Your task to perform on an android device: Go to privacy settings Image 0: 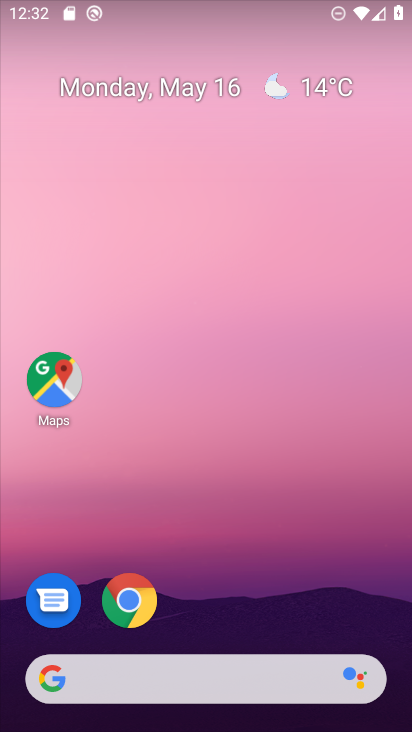
Step 0: drag from (212, 638) to (226, 9)
Your task to perform on an android device: Go to privacy settings Image 1: 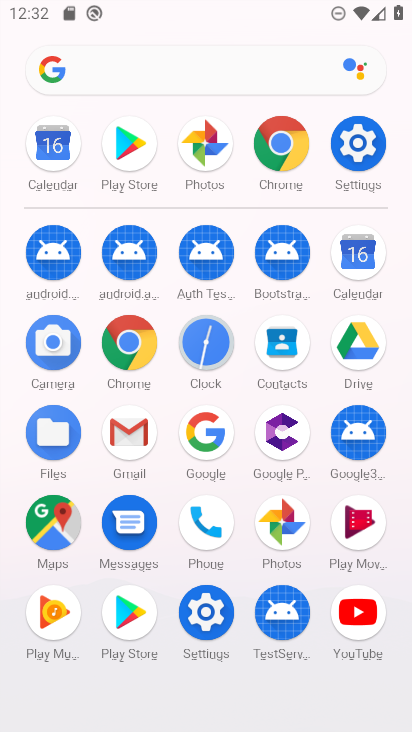
Step 1: click (356, 135)
Your task to perform on an android device: Go to privacy settings Image 2: 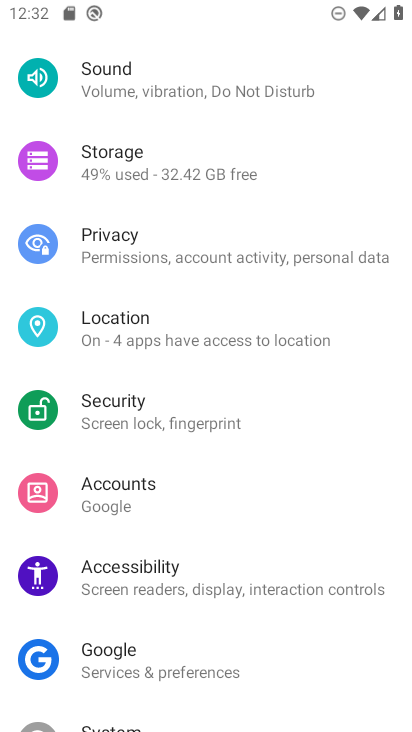
Step 2: click (148, 231)
Your task to perform on an android device: Go to privacy settings Image 3: 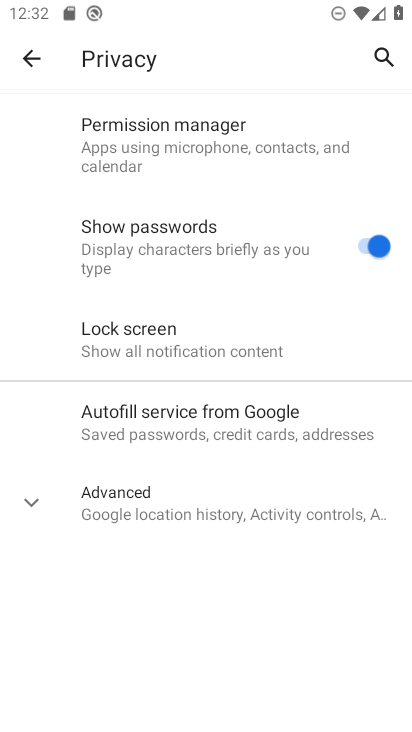
Step 3: click (32, 494)
Your task to perform on an android device: Go to privacy settings Image 4: 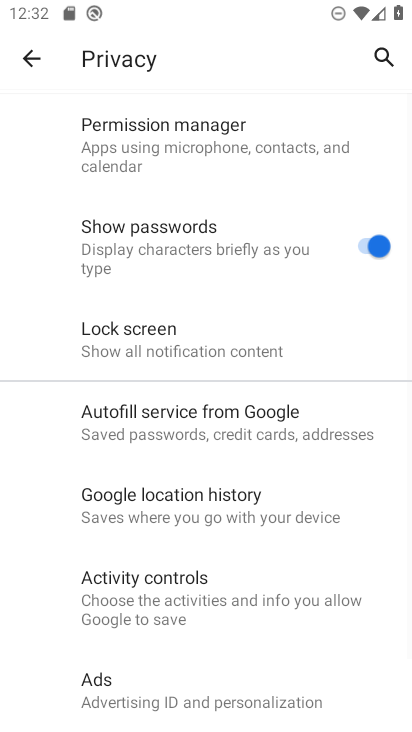
Step 4: task complete